Your task to perform on an android device: Open maps Image 0: 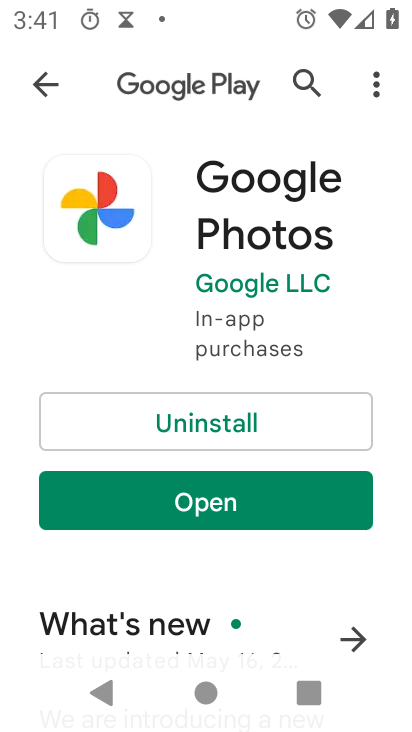
Step 0: press home button
Your task to perform on an android device: Open maps Image 1: 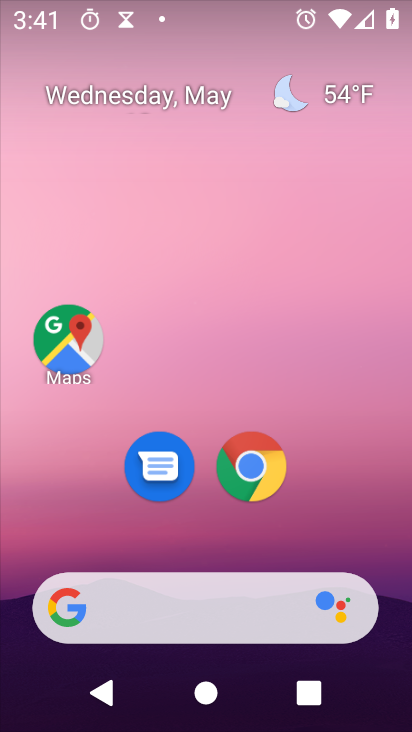
Step 1: click (55, 319)
Your task to perform on an android device: Open maps Image 2: 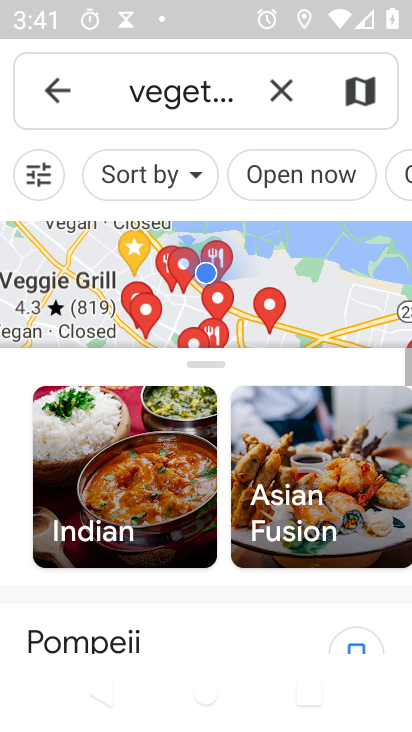
Step 2: task complete